Your task to perform on an android device: Open the phone app and click the voicemail tab. Image 0: 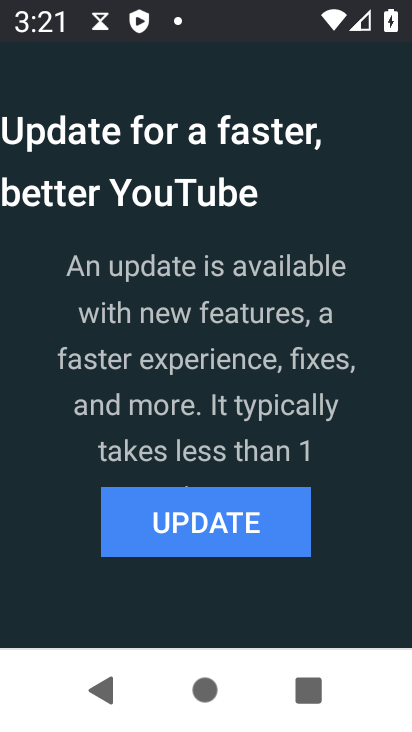
Step 0: press home button
Your task to perform on an android device: Open the phone app and click the voicemail tab. Image 1: 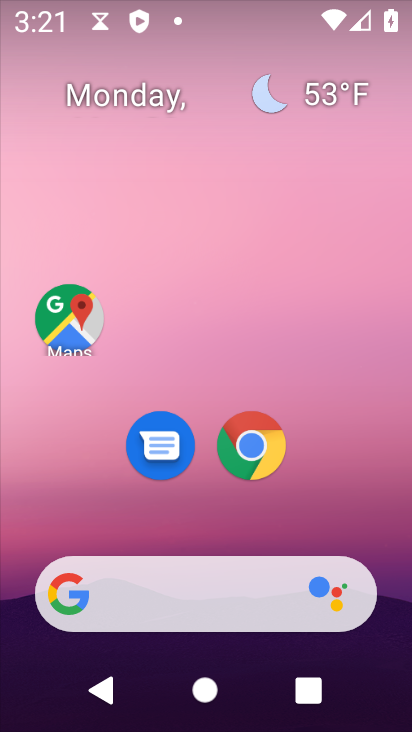
Step 1: drag from (197, 545) to (213, 72)
Your task to perform on an android device: Open the phone app and click the voicemail tab. Image 2: 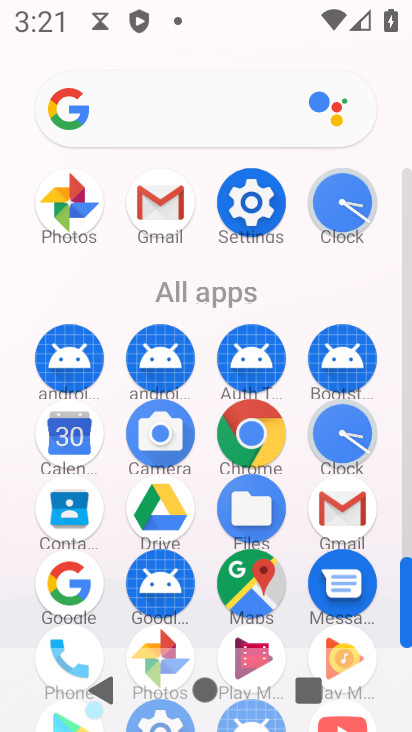
Step 2: drag from (191, 581) to (209, 356)
Your task to perform on an android device: Open the phone app and click the voicemail tab. Image 3: 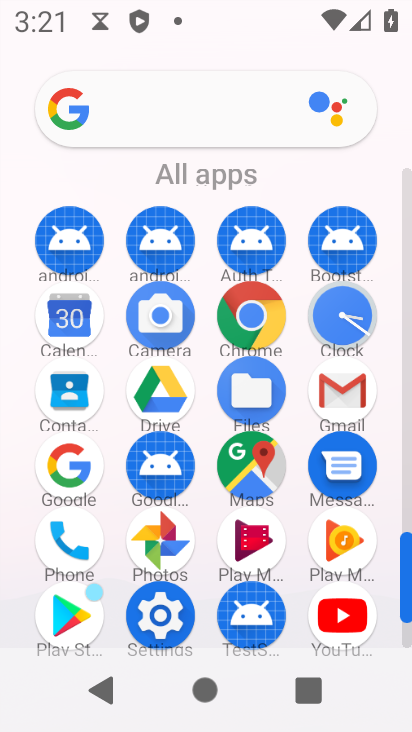
Step 3: click (75, 543)
Your task to perform on an android device: Open the phone app and click the voicemail tab. Image 4: 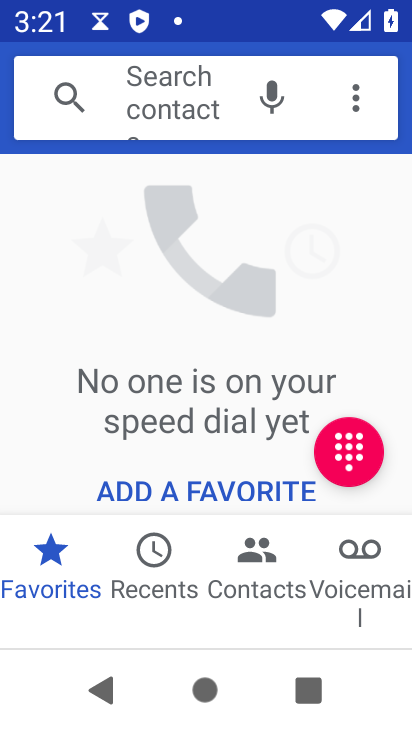
Step 4: click (379, 578)
Your task to perform on an android device: Open the phone app and click the voicemail tab. Image 5: 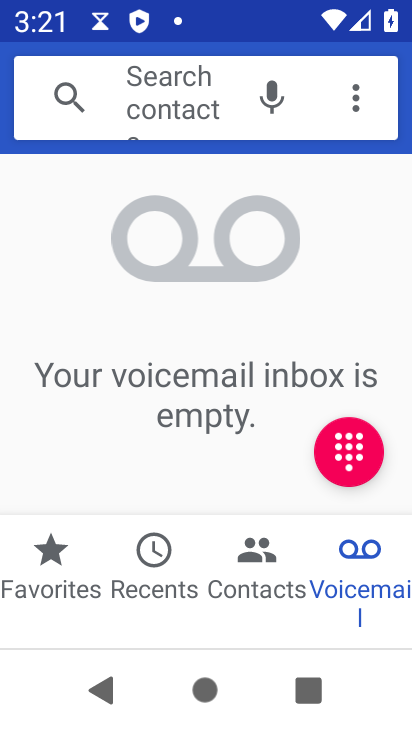
Step 5: task complete